Your task to perform on an android device: Search for Italian restaurants on Maps Image 0: 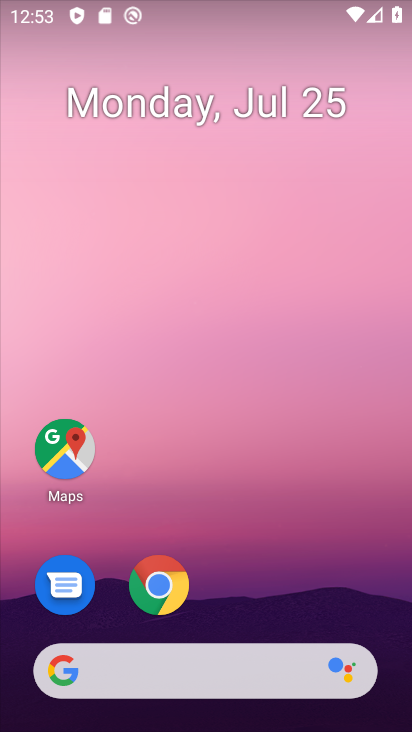
Step 0: click (64, 452)
Your task to perform on an android device: Search for Italian restaurants on Maps Image 1: 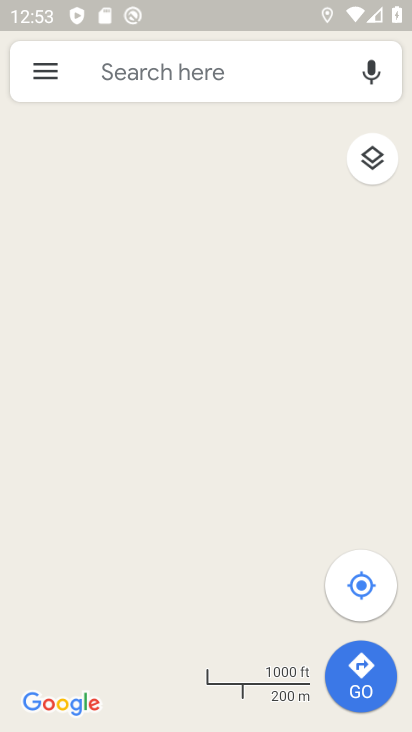
Step 1: click (237, 66)
Your task to perform on an android device: Search for Italian restaurants on Maps Image 2: 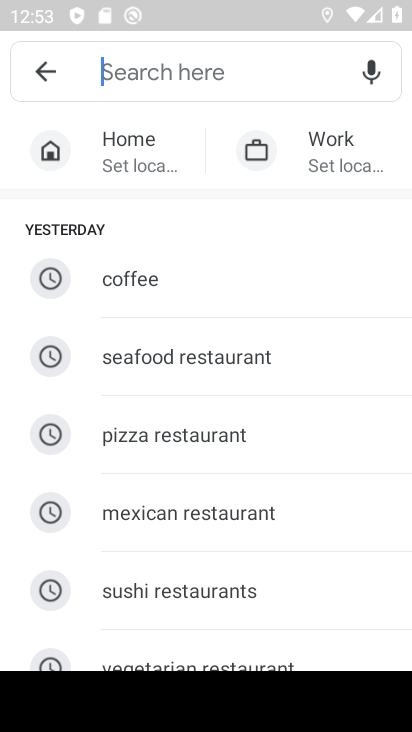
Step 2: drag from (210, 549) to (252, 154)
Your task to perform on an android device: Search for Italian restaurants on Maps Image 3: 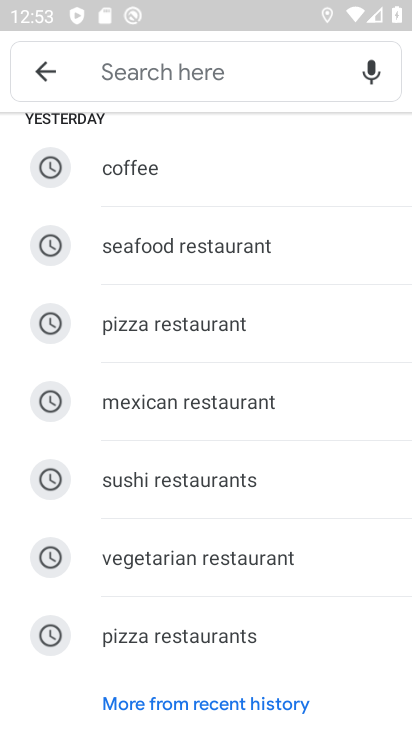
Step 3: drag from (220, 191) to (219, 523)
Your task to perform on an android device: Search for Italian restaurants on Maps Image 4: 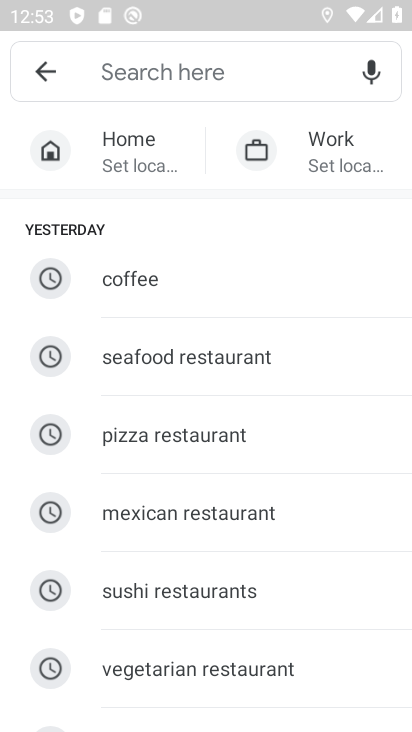
Step 4: click (226, 65)
Your task to perform on an android device: Search for Italian restaurants on Maps Image 5: 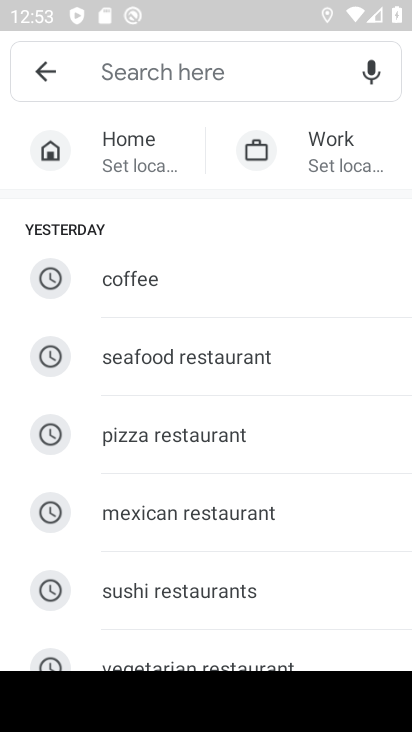
Step 5: type "Italian restaurants"
Your task to perform on an android device: Search for Italian restaurants on Maps Image 6: 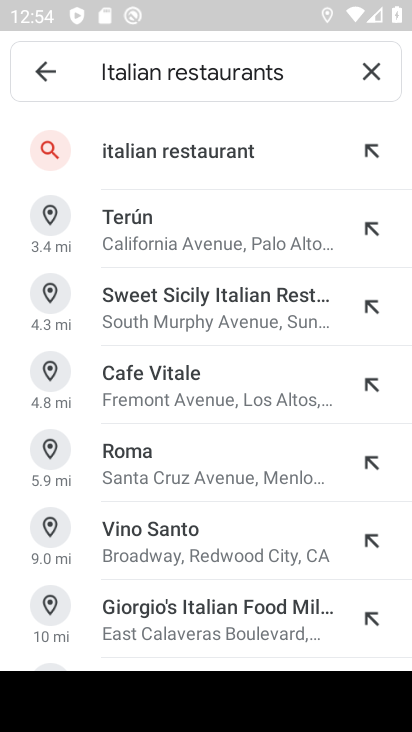
Step 6: click (210, 151)
Your task to perform on an android device: Search for Italian restaurants on Maps Image 7: 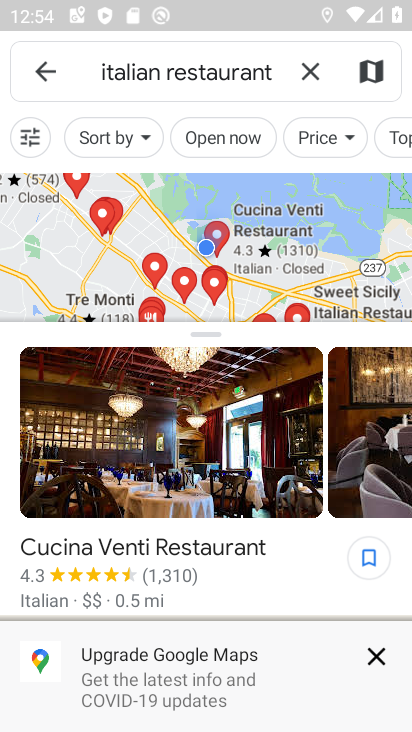
Step 7: task complete